Your task to perform on an android device: turn smart compose on in the gmail app Image 0: 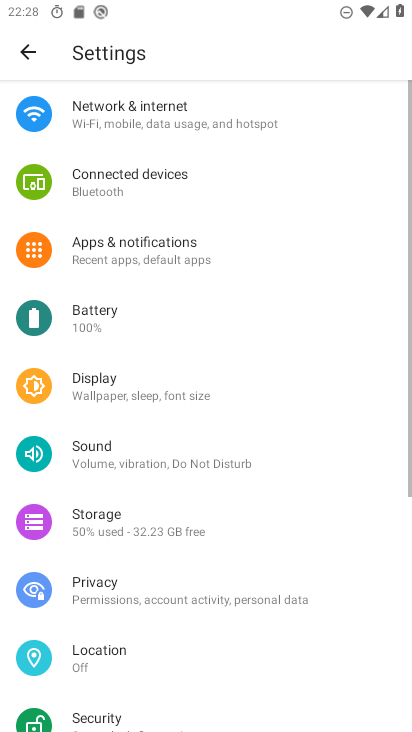
Step 0: press home button
Your task to perform on an android device: turn smart compose on in the gmail app Image 1: 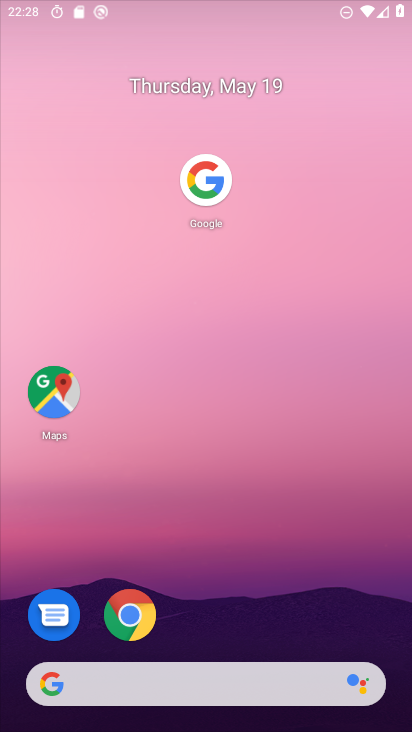
Step 1: drag from (218, 539) to (270, 49)
Your task to perform on an android device: turn smart compose on in the gmail app Image 2: 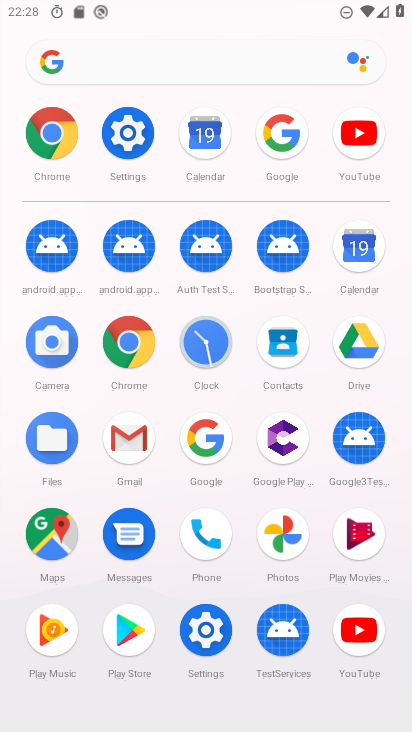
Step 2: click (133, 430)
Your task to perform on an android device: turn smart compose on in the gmail app Image 3: 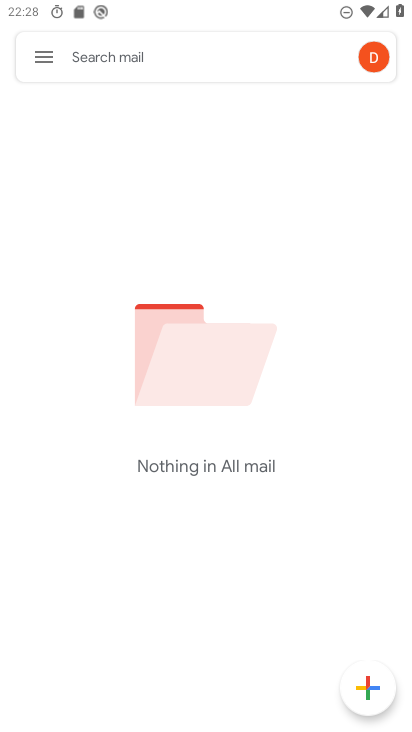
Step 3: click (50, 58)
Your task to perform on an android device: turn smart compose on in the gmail app Image 4: 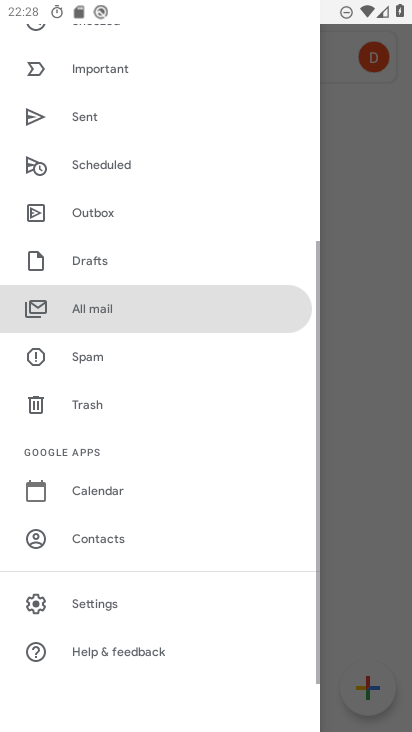
Step 4: click (109, 591)
Your task to perform on an android device: turn smart compose on in the gmail app Image 5: 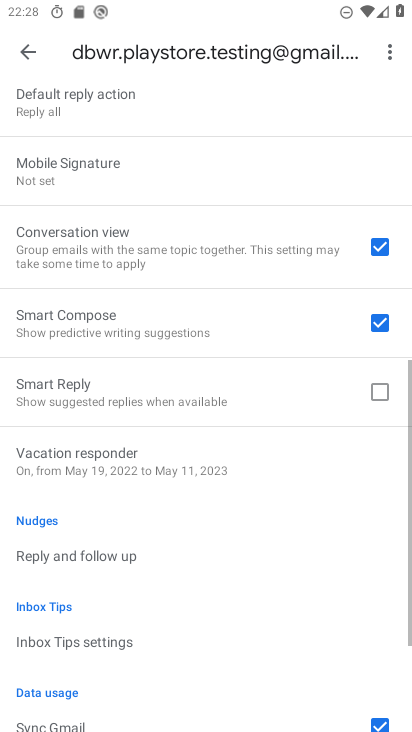
Step 5: task complete